Your task to perform on an android device: How much does a 3 bedroom apartment rent for in Dallas? Image 0: 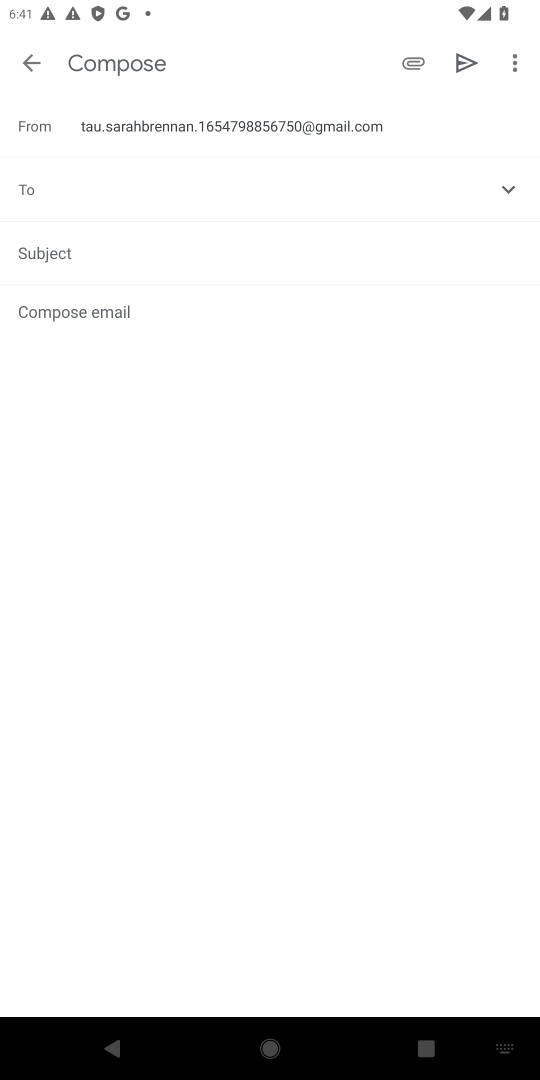
Step 0: press home button
Your task to perform on an android device: How much does a 3 bedroom apartment rent for in Dallas? Image 1: 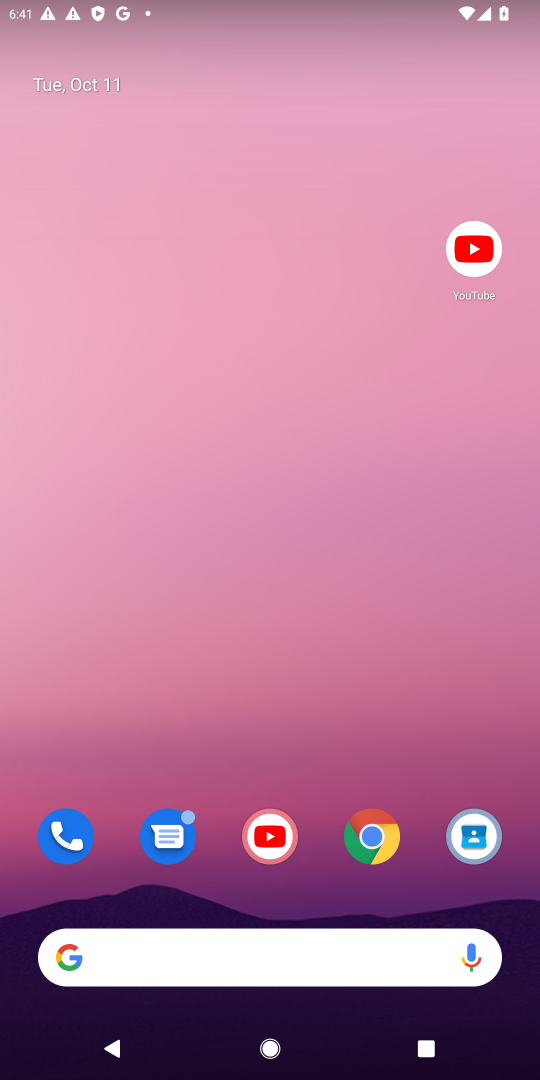
Step 1: click (380, 830)
Your task to perform on an android device: How much does a 3 bedroom apartment rent for in Dallas? Image 2: 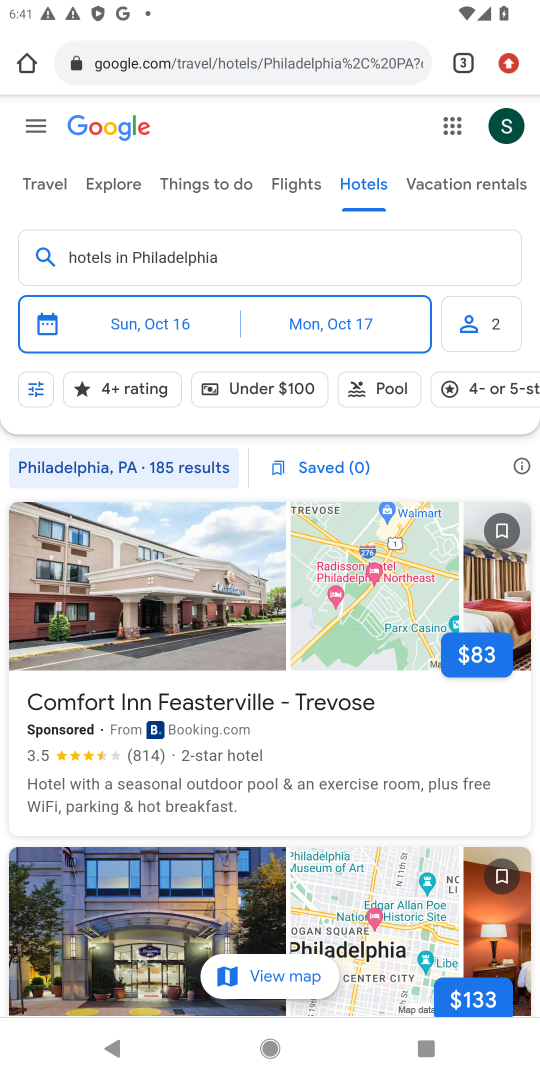
Step 2: click (152, 53)
Your task to perform on an android device: How much does a 3 bedroom apartment rent for in Dallas? Image 3: 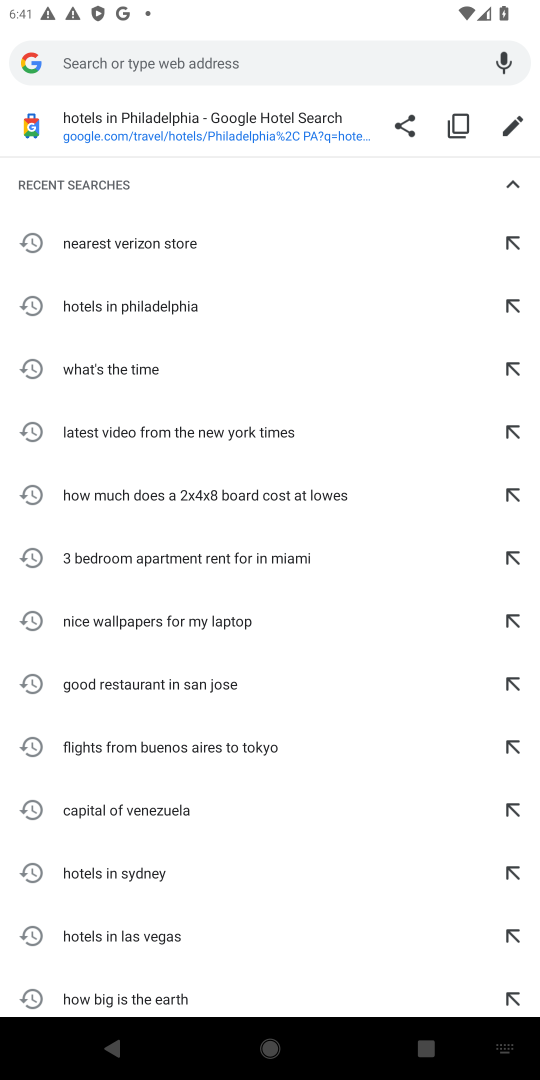
Step 3: type "3 bedroom apartment rent for in Dallas"
Your task to perform on an android device: How much does a 3 bedroom apartment rent for in Dallas? Image 4: 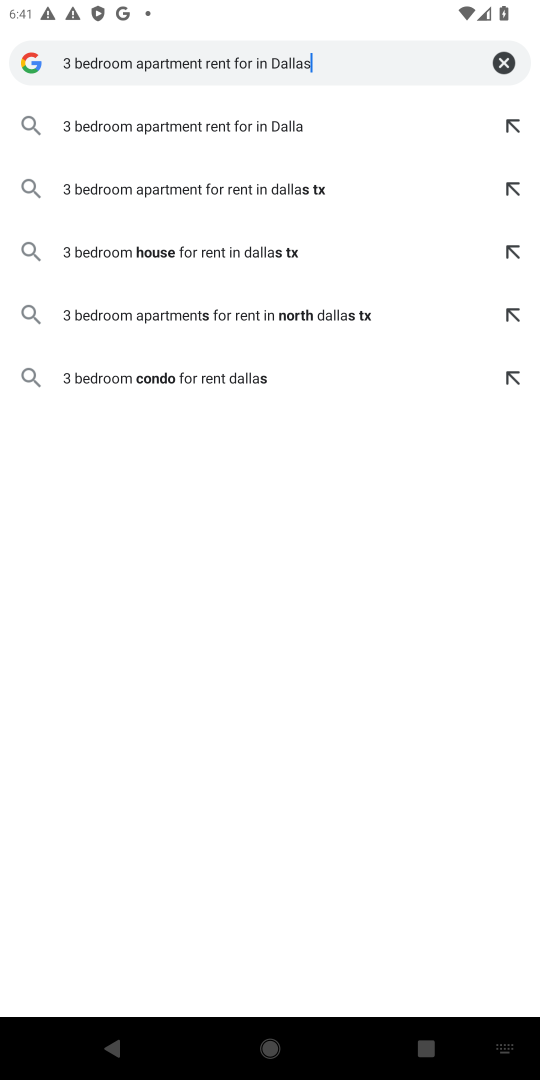
Step 4: press enter
Your task to perform on an android device: How much does a 3 bedroom apartment rent for in Dallas? Image 5: 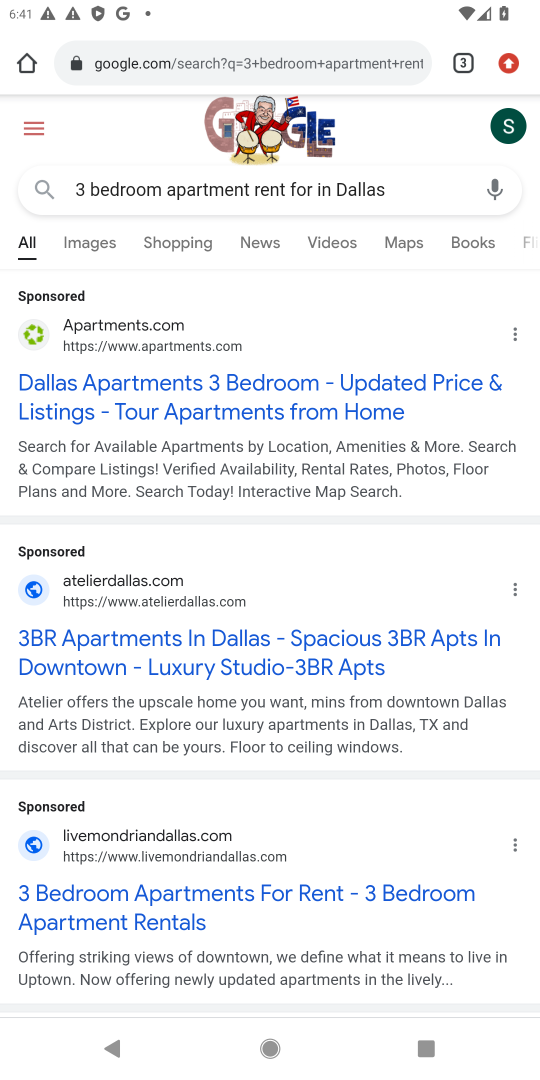
Step 5: drag from (251, 809) to (396, 511)
Your task to perform on an android device: How much does a 3 bedroom apartment rent for in Dallas? Image 6: 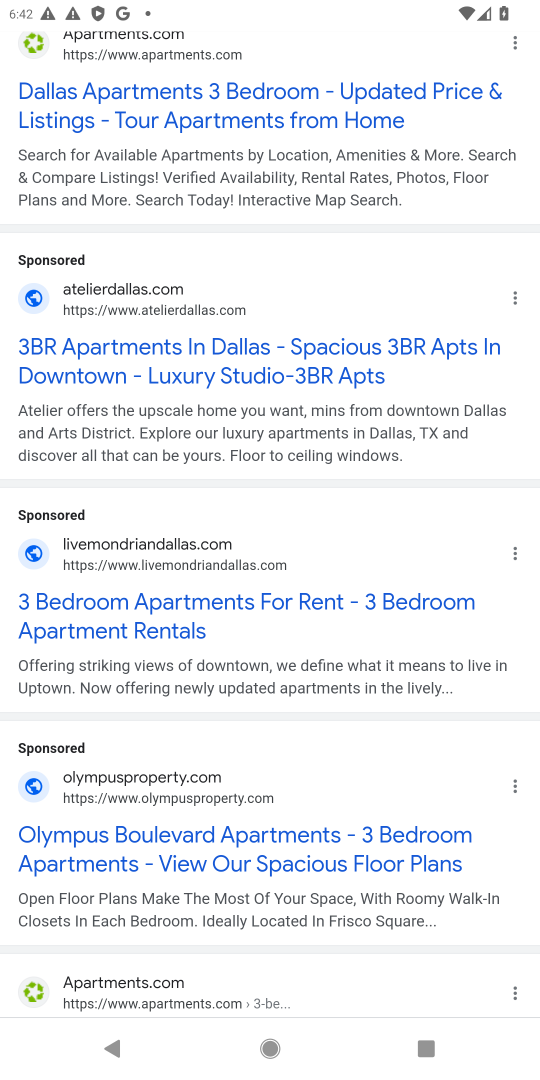
Step 6: click (305, 601)
Your task to perform on an android device: How much does a 3 bedroom apartment rent for in Dallas? Image 7: 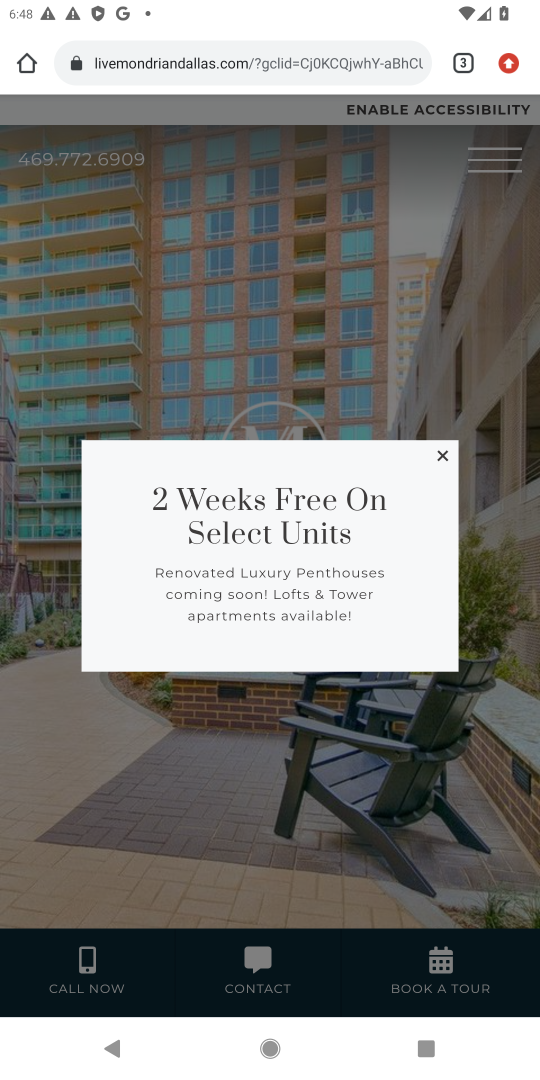
Step 7: task complete